Your task to perform on an android device: turn on wifi Image 0: 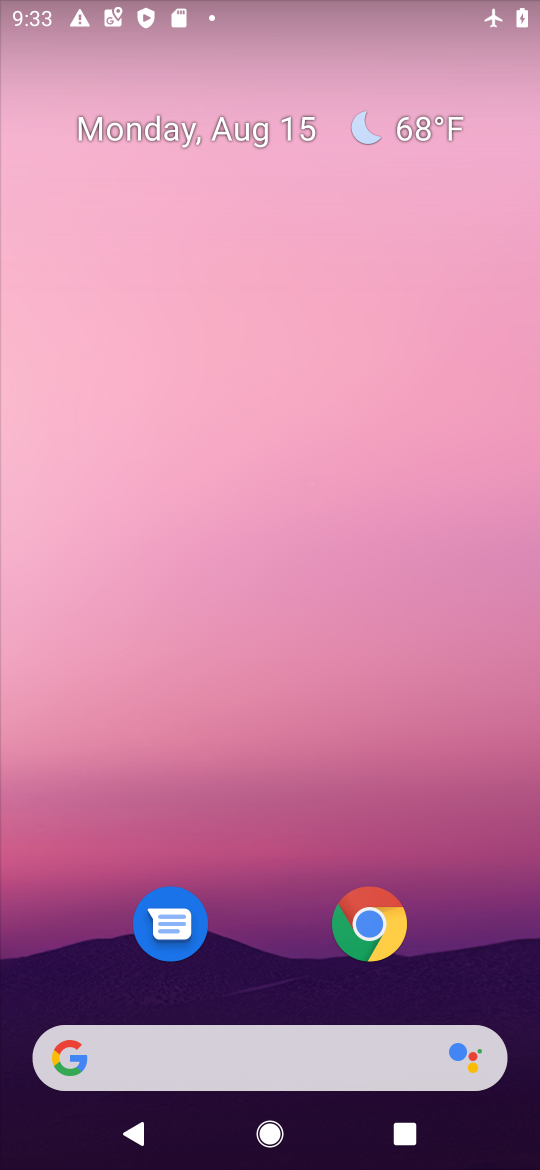
Step 0: drag from (491, 1011) to (486, 394)
Your task to perform on an android device: turn on wifi Image 1: 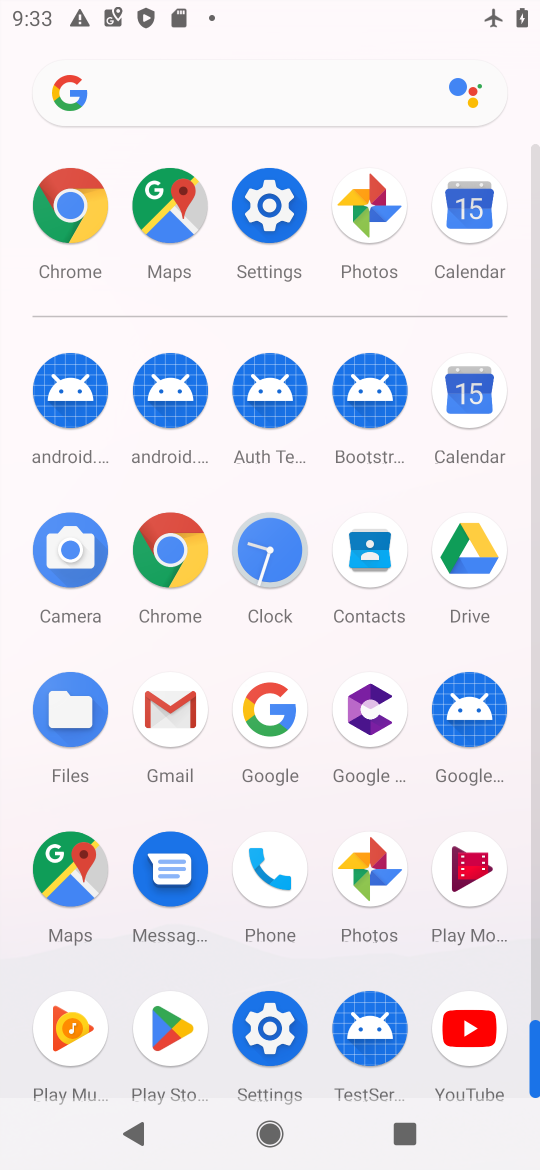
Step 1: click (273, 1031)
Your task to perform on an android device: turn on wifi Image 2: 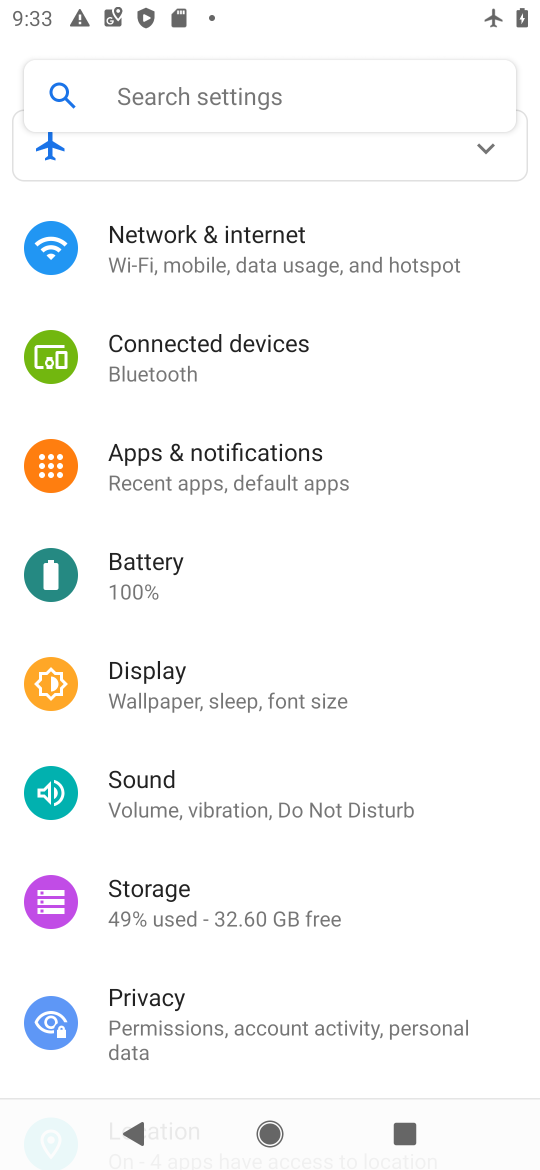
Step 2: click (211, 229)
Your task to perform on an android device: turn on wifi Image 3: 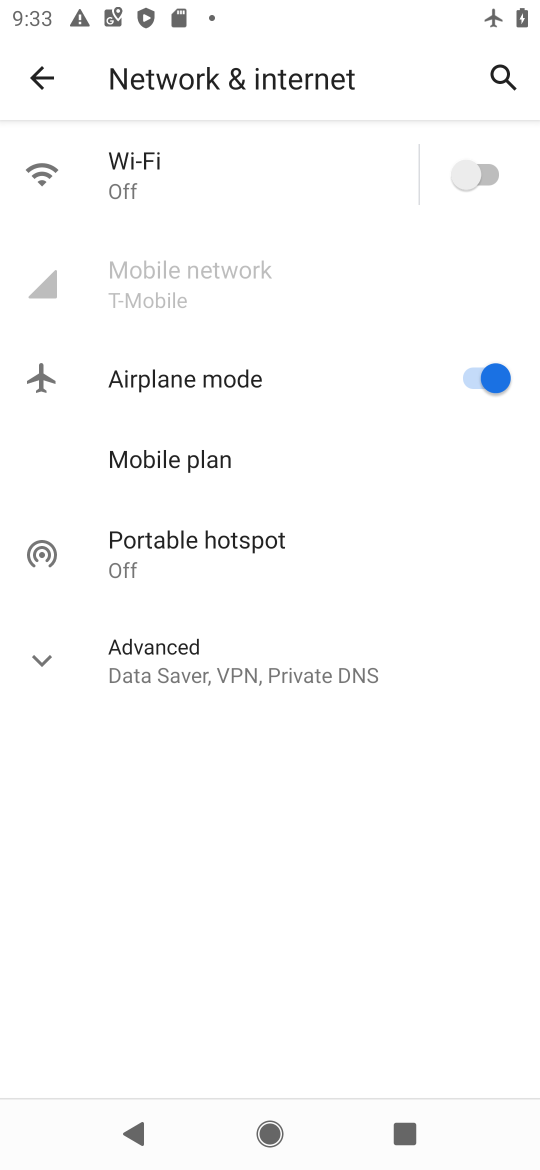
Step 3: click (492, 171)
Your task to perform on an android device: turn on wifi Image 4: 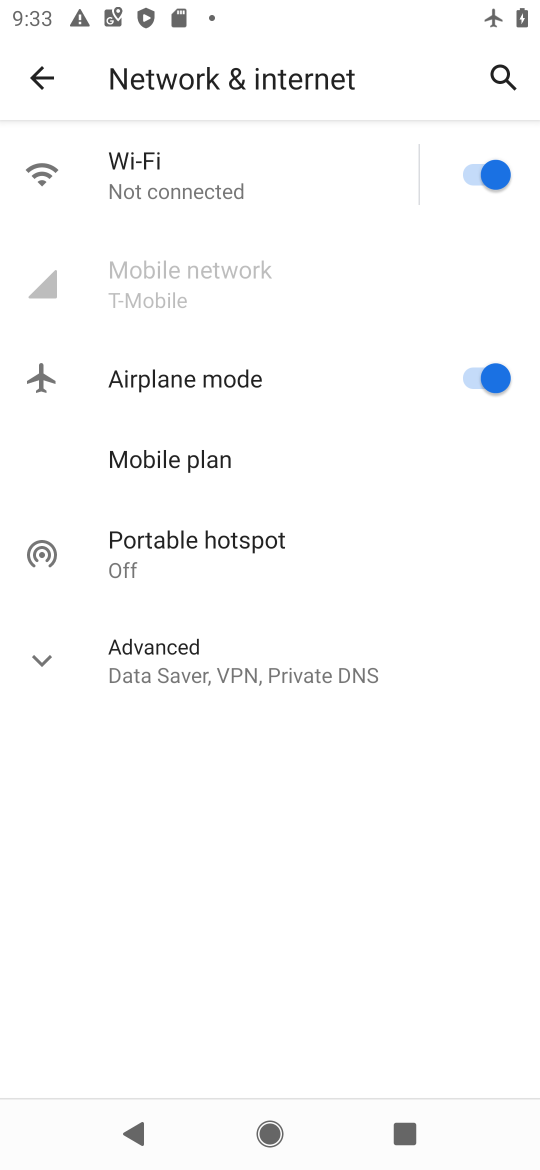
Step 4: task complete